Your task to perform on an android device: Open Chrome and go to settings Image 0: 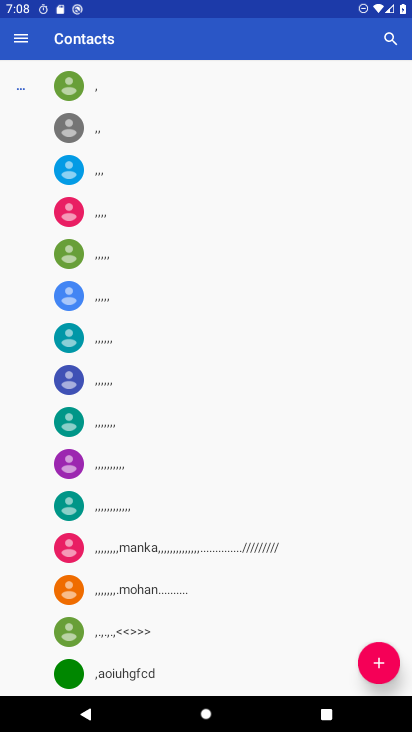
Step 0: press home button
Your task to perform on an android device: Open Chrome and go to settings Image 1: 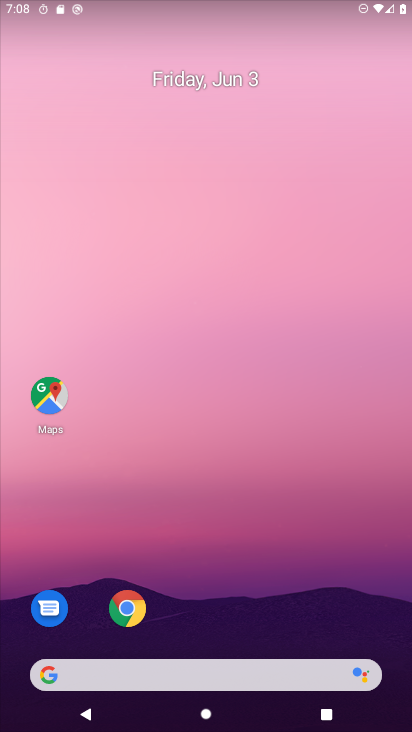
Step 1: click (127, 622)
Your task to perform on an android device: Open Chrome and go to settings Image 2: 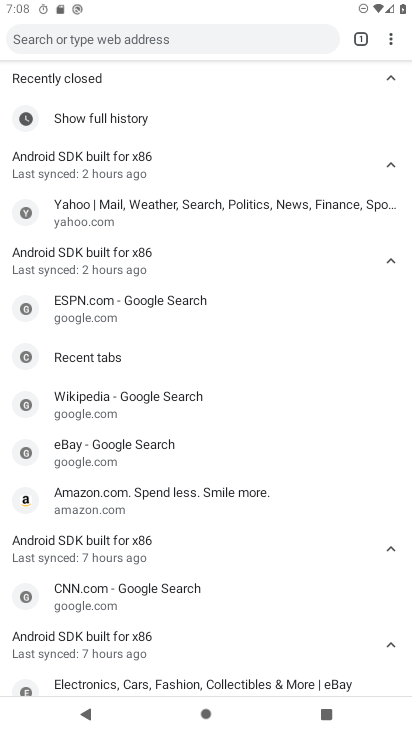
Step 2: click (399, 43)
Your task to perform on an android device: Open Chrome and go to settings Image 3: 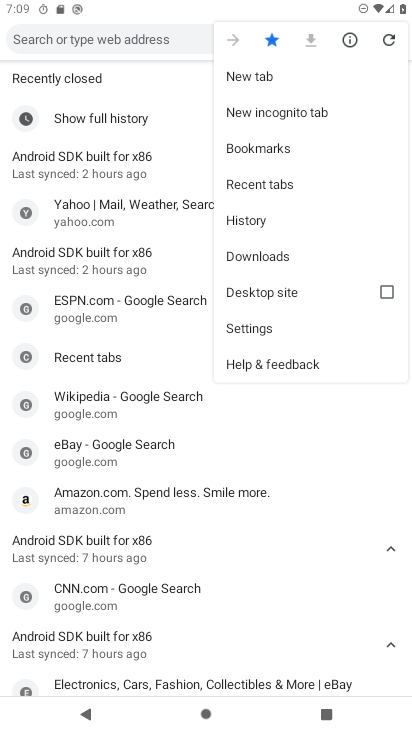
Step 3: click (239, 320)
Your task to perform on an android device: Open Chrome and go to settings Image 4: 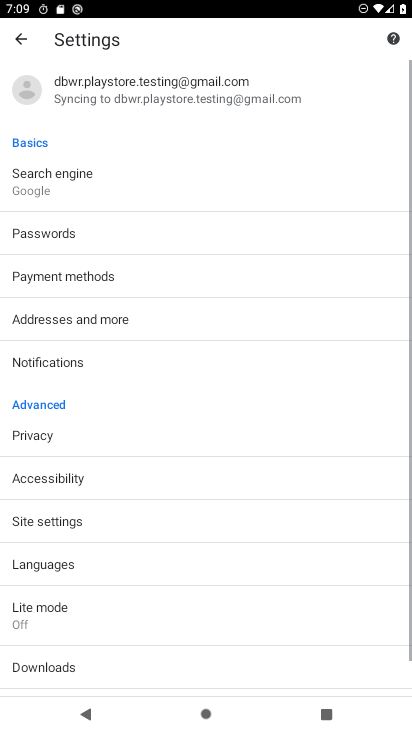
Step 4: click (249, 337)
Your task to perform on an android device: Open Chrome and go to settings Image 5: 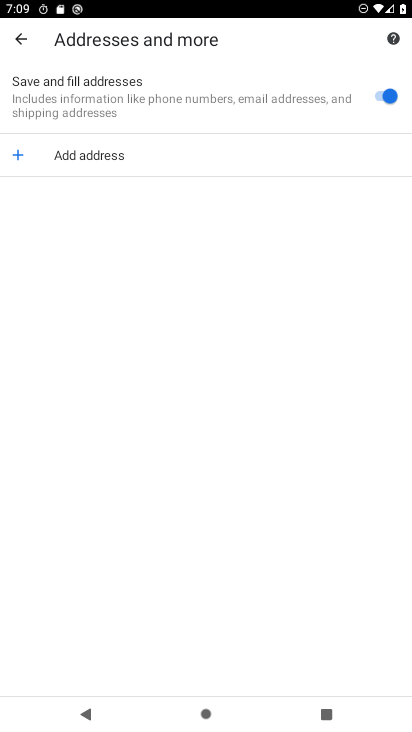
Step 5: task complete